Your task to perform on an android device: Show me productivity apps on the Play Store Image 0: 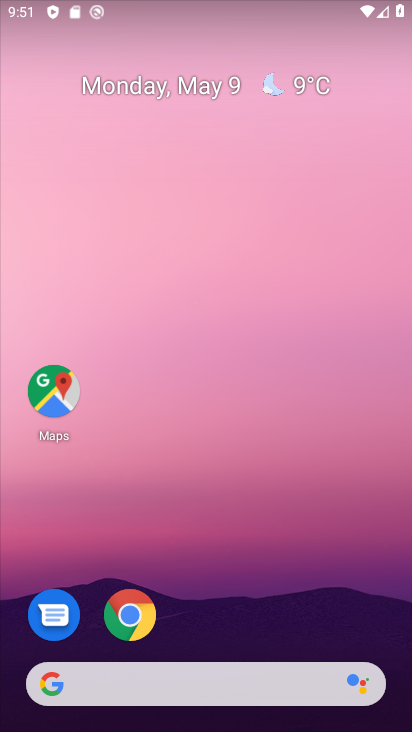
Step 0: drag from (188, 625) to (190, 130)
Your task to perform on an android device: Show me productivity apps on the Play Store Image 1: 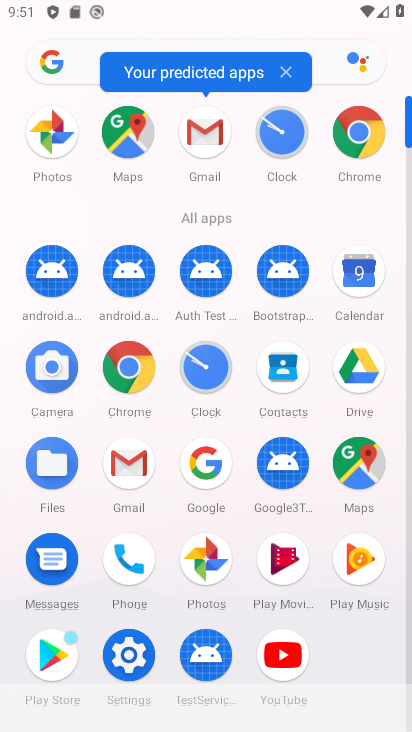
Step 1: click (38, 661)
Your task to perform on an android device: Show me productivity apps on the Play Store Image 2: 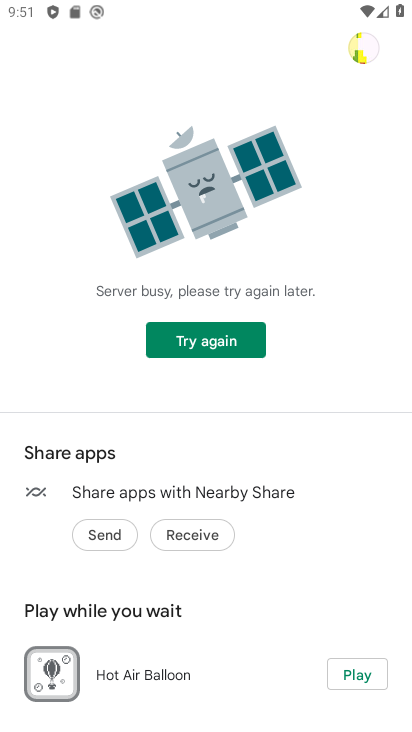
Step 2: click (177, 344)
Your task to perform on an android device: Show me productivity apps on the Play Store Image 3: 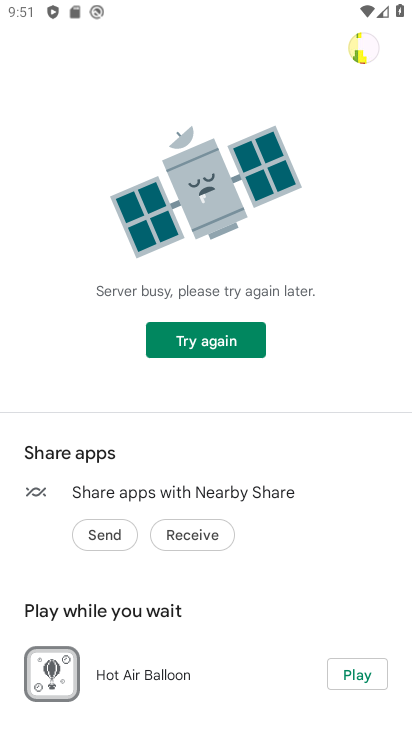
Step 3: task complete